Your task to perform on an android device: check battery use Image 0: 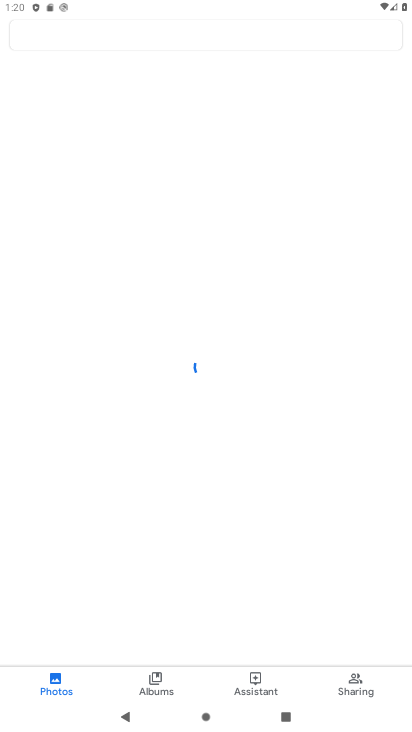
Step 0: press home button
Your task to perform on an android device: check battery use Image 1: 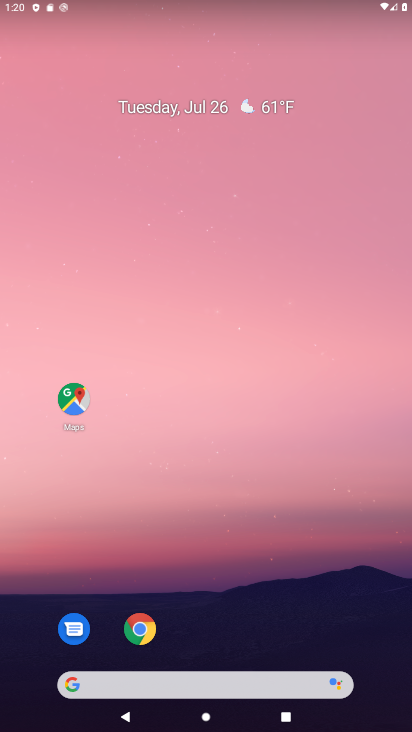
Step 1: drag from (227, 648) to (164, 109)
Your task to perform on an android device: check battery use Image 2: 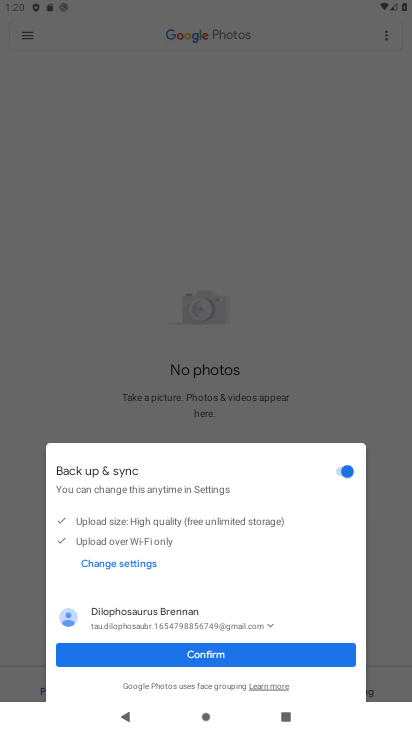
Step 2: press home button
Your task to perform on an android device: check battery use Image 3: 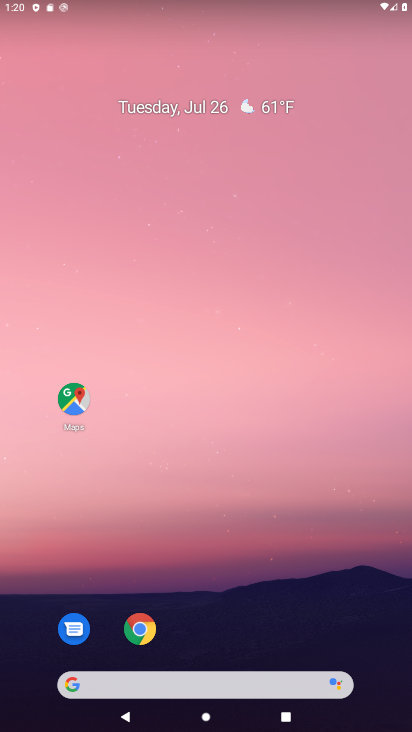
Step 3: drag from (246, 646) to (170, 101)
Your task to perform on an android device: check battery use Image 4: 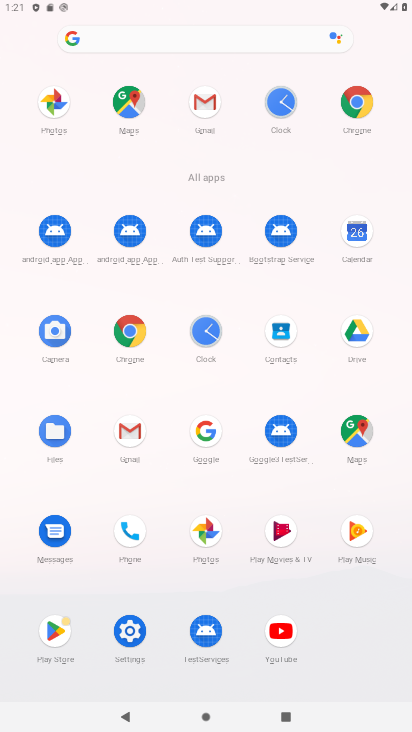
Step 4: click (135, 626)
Your task to perform on an android device: check battery use Image 5: 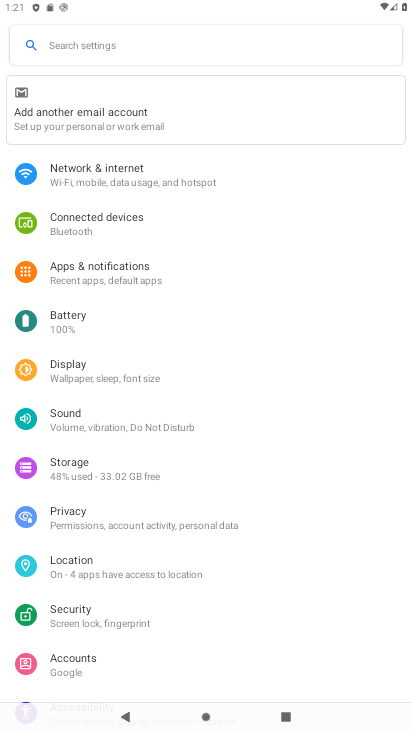
Step 5: click (225, 323)
Your task to perform on an android device: check battery use Image 6: 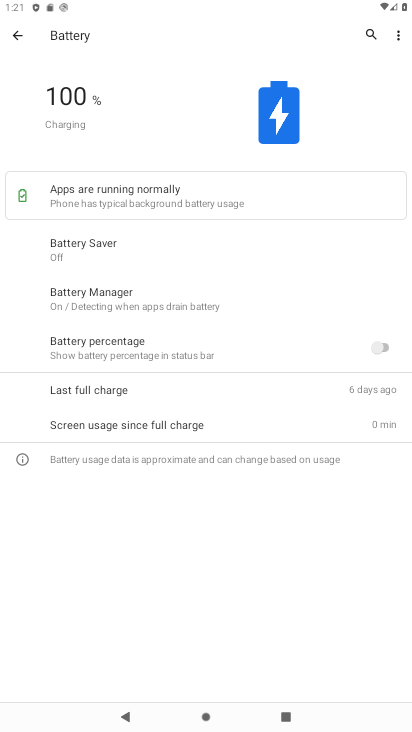
Step 6: click (399, 35)
Your task to perform on an android device: check battery use Image 7: 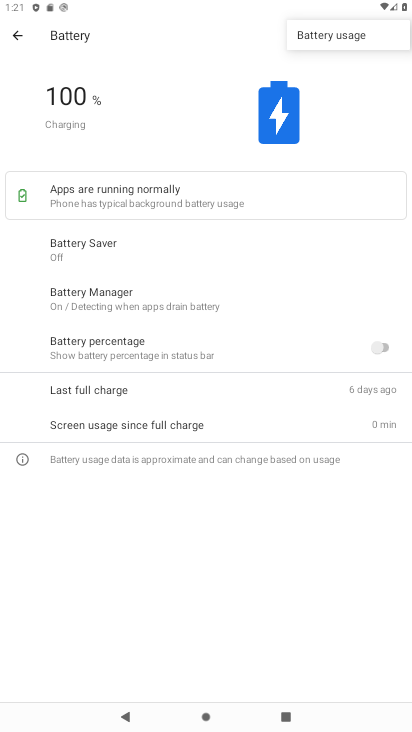
Step 7: click (331, 40)
Your task to perform on an android device: check battery use Image 8: 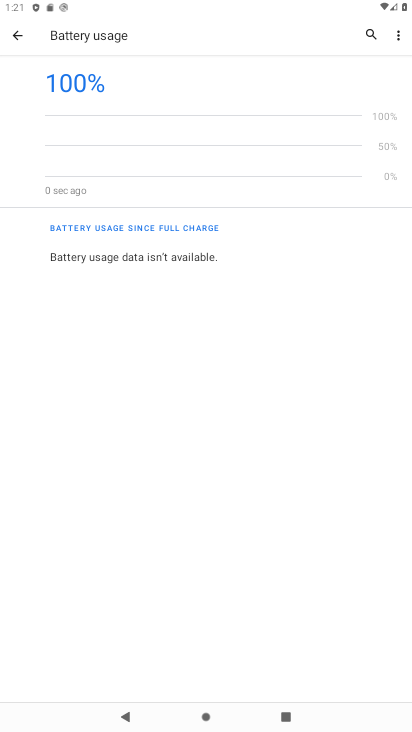
Step 8: task complete